Your task to perform on an android device: turn on wifi Image 0: 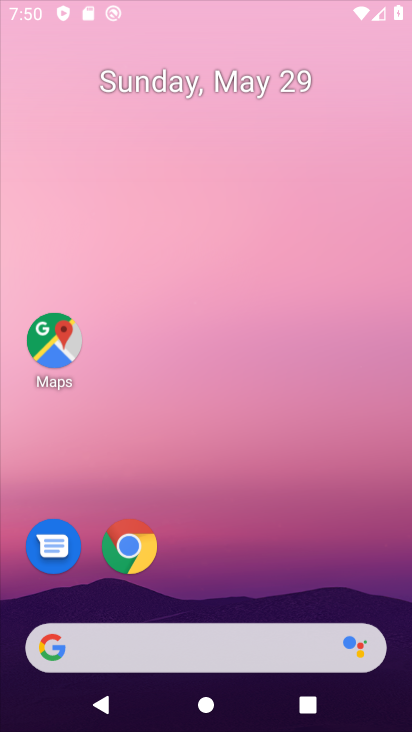
Step 0: drag from (269, 571) to (399, 44)
Your task to perform on an android device: turn on wifi Image 1: 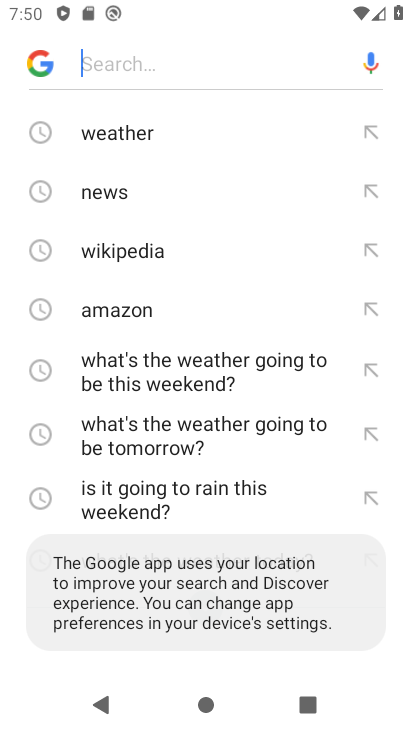
Step 1: press home button
Your task to perform on an android device: turn on wifi Image 2: 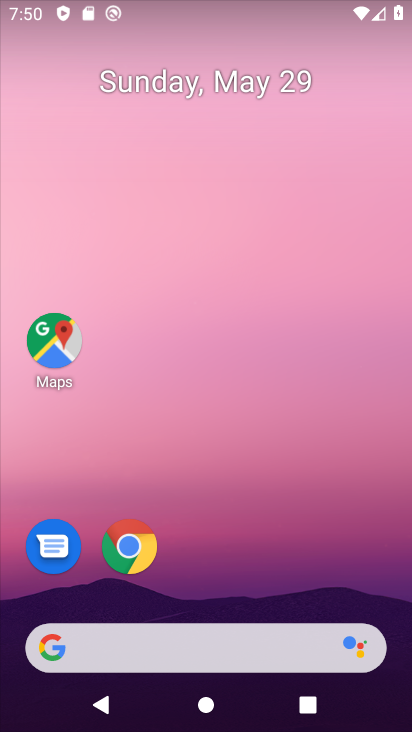
Step 2: drag from (281, 516) to (278, 110)
Your task to perform on an android device: turn on wifi Image 3: 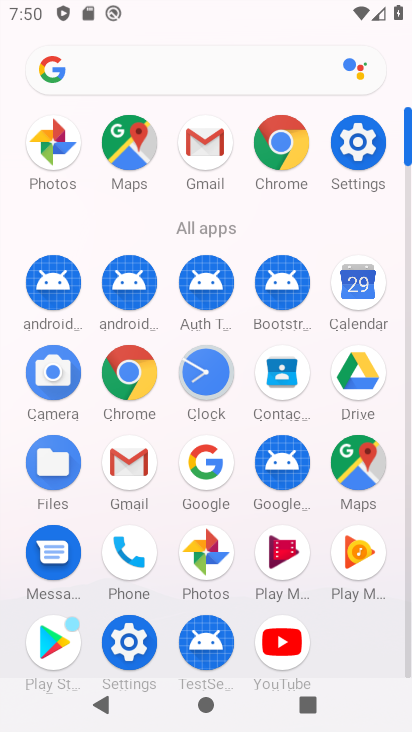
Step 3: click (343, 151)
Your task to perform on an android device: turn on wifi Image 4: 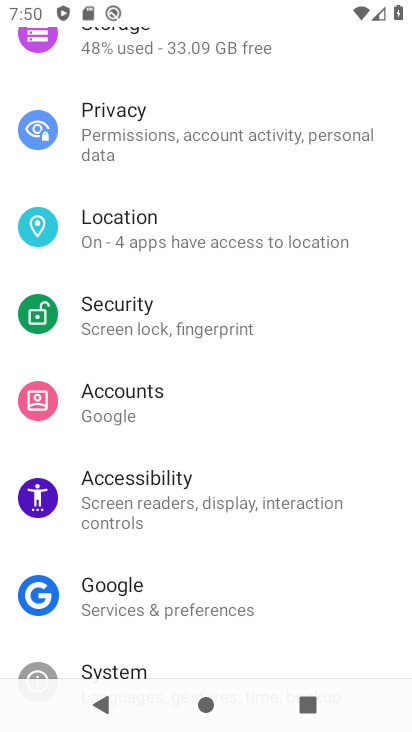
Step 4: drag from (252, 74) to (190, 578)
Your task to perform on an android device: turn on wifi Image 5: 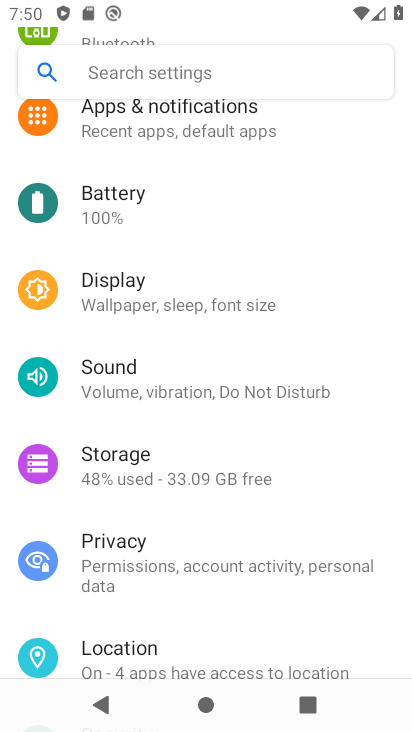
Step 5: drag from (222, 249) to (224, 599)
Your task to perform on an android device: turn on wifi Image 6: 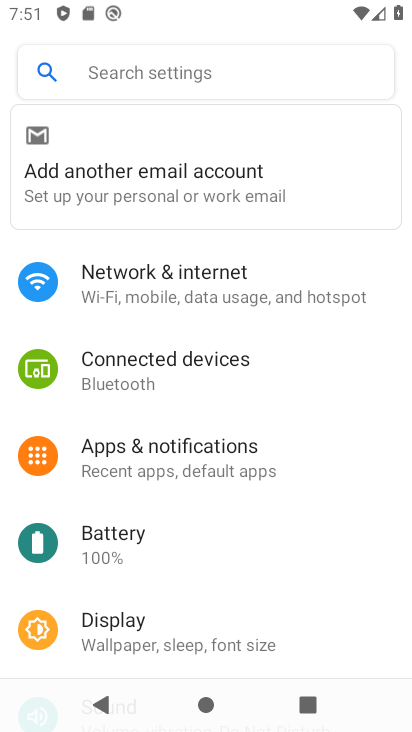
Step 6: click (263, 272)
Your task to perform on an android device: turn on wifi Image 7: 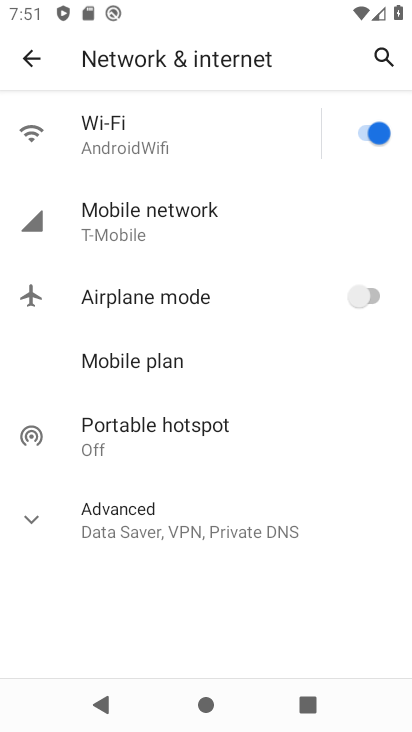
Step 7: task complete